Your task to perform on an android device: turn smart compose on in the gmail app Image 0: 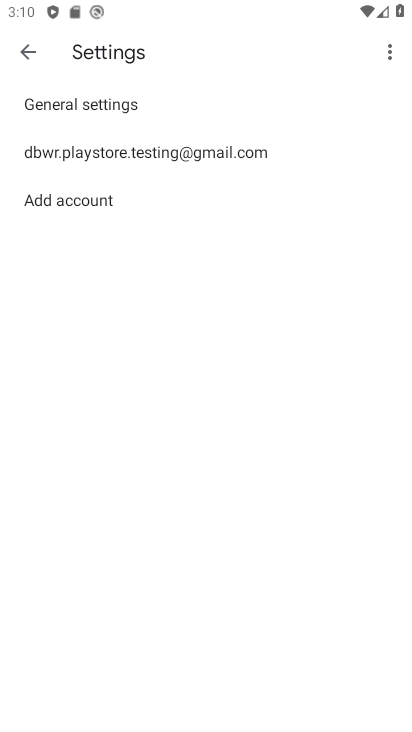
Step 0: press home button
Your task to perform on an android device: turn smart compose on in the gmail app Image 1: 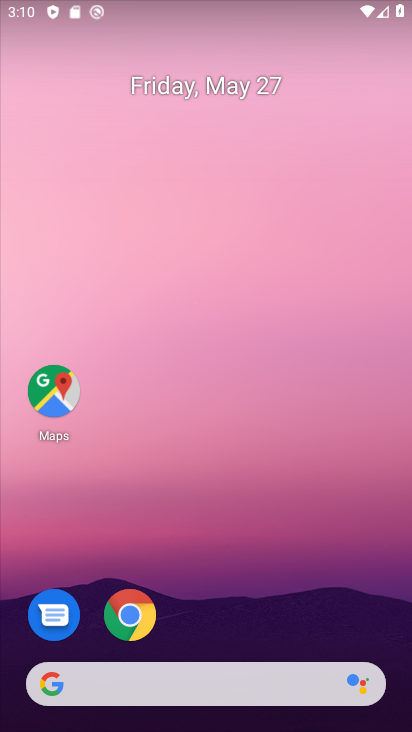
Step 1: drag from (84, 728) to (68, 38)
Your task to perform on an android device: turn smart compose on in the gmail app Image 2: 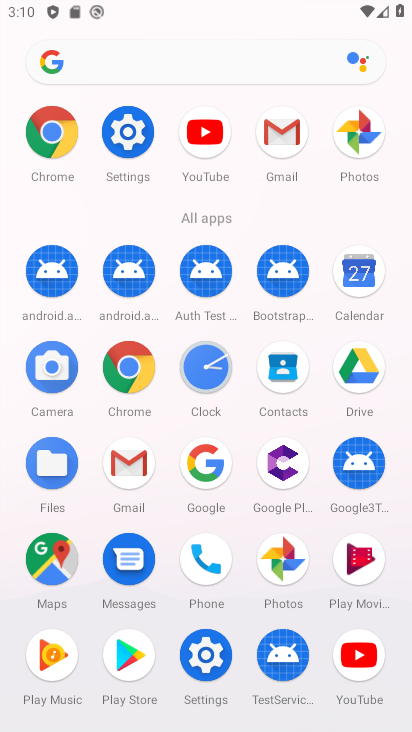
Step 2: click (128, 470)
Your task to perform on an android device: turn smart compose on in the gmail app Image 3: 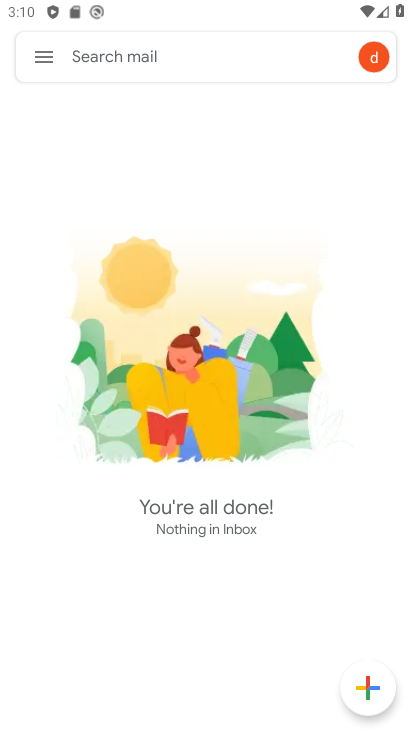
Step 3: click (46, 55)
Your task to perform on an android device: turn smart compose on in the gmail app Image 4: 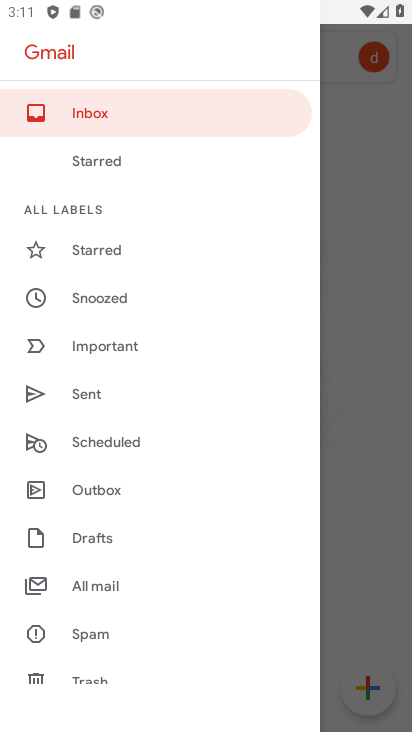
Step 4: drag from (135, 650) to (126, 230)
Your task to perform on an android device: turn smart compose on in the gmail app Image 5: 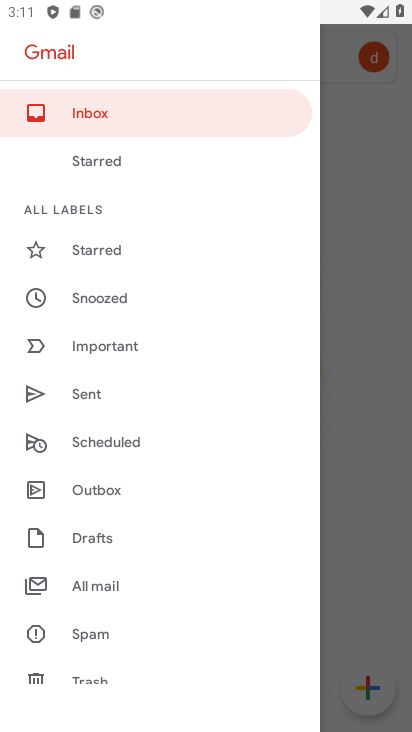
Step 5: drag from (175, 639) to (153, 114)
Your task to perform on an android device: turn smart compose on in the gmail app Image 6: 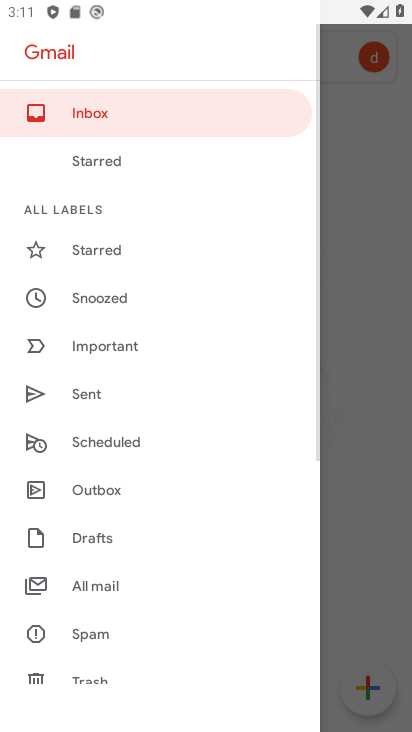
Step 6: drag from (145, 673) to (220, 156)
Your task to perform on an android device: turn smart compose on in the gmail app Image 7: 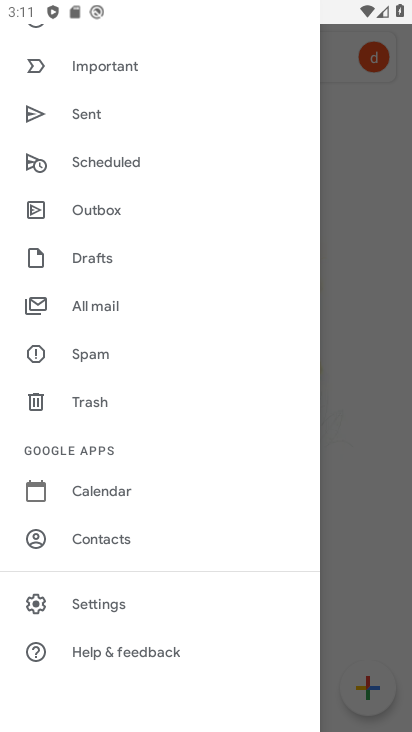
Step 7: click (111, 611)
Your task to perform on an android device: turn smart compose on in the gmail app Image 8: 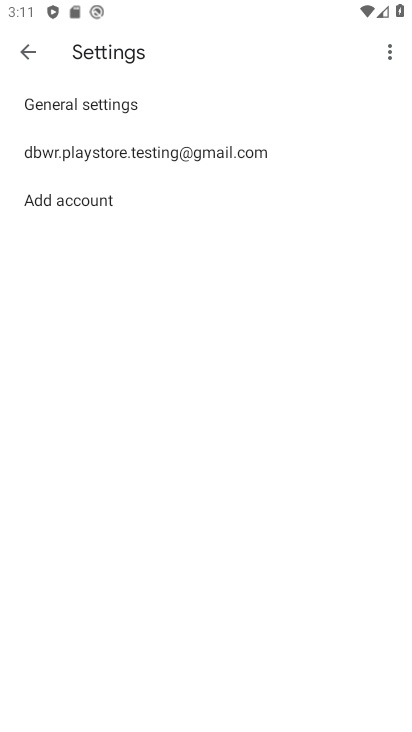
Step 8: click (62, 146)
Your task to perform on an android device: turn smart compose on in the gmail app Image 9: 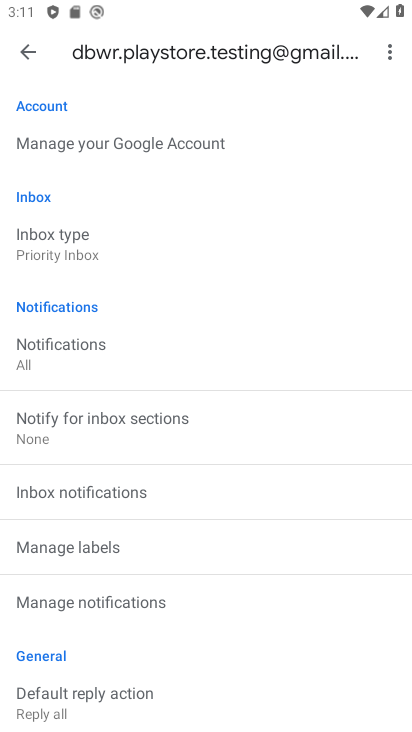
Step 9: task complete